Your task to perform on an android device: turn on notifications settings in the gmail app Image 0: 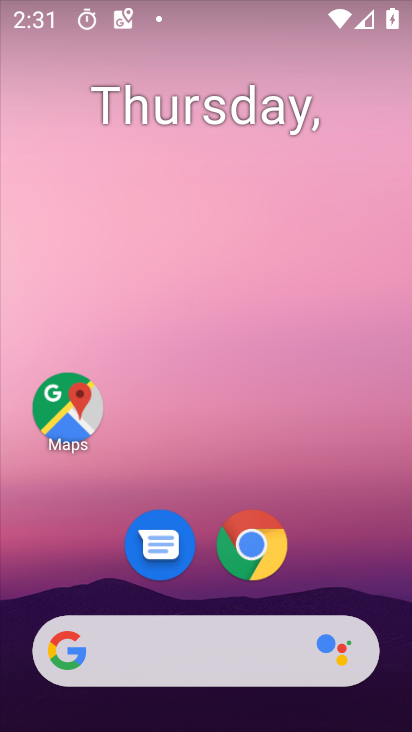
Step 0: drag from (180, 724) to (186, 88)
Your task to perform on an android device: turn on notifications settings in the gmail app Image 1: 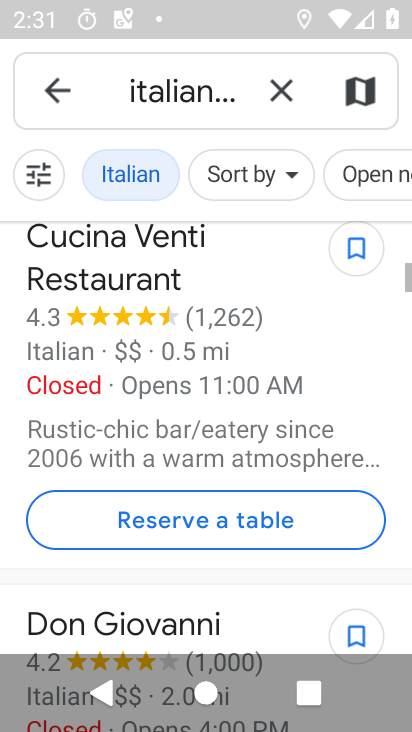
Step 1: press home button
Your task to perform on an android device: turn on notifications settings in the gmail app Image 2: 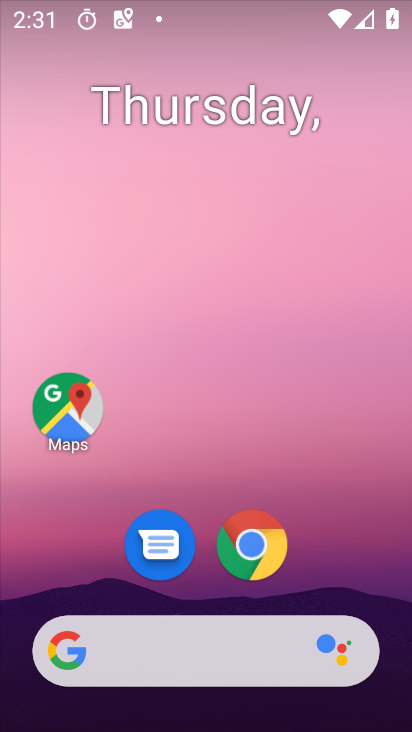
Step 2: drag from (191, 690) to (192, 162)
Your task to perform on an android device: turn on notifications settings in the gmail app Image 3: 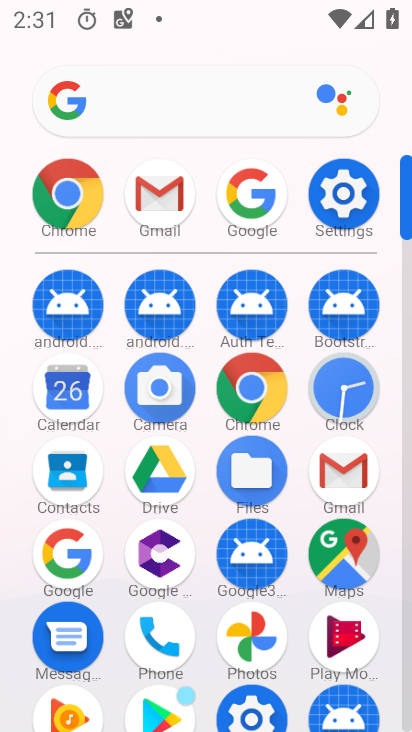
Step 3: click (339, 471)
Your task to perform on an android device: turn on notifications settings in the gmail app Image 4: 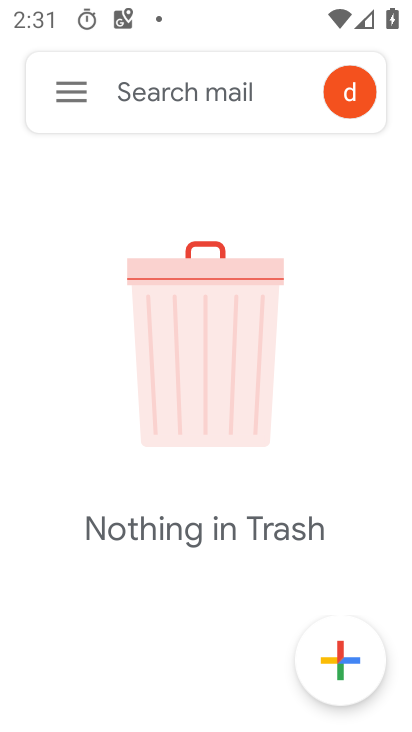
Step 4: click (57, 85)
Your task to perform on an android device: turn on notifications settings in the gmail app Image 5: 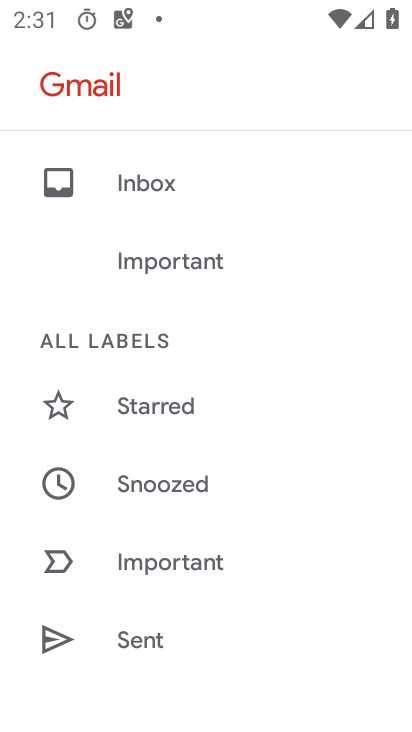
Step 5: drag from (158, 653) to (170, 213)
Your task to perform on an android device: turn on notifications settings in the gmail app Image 6: 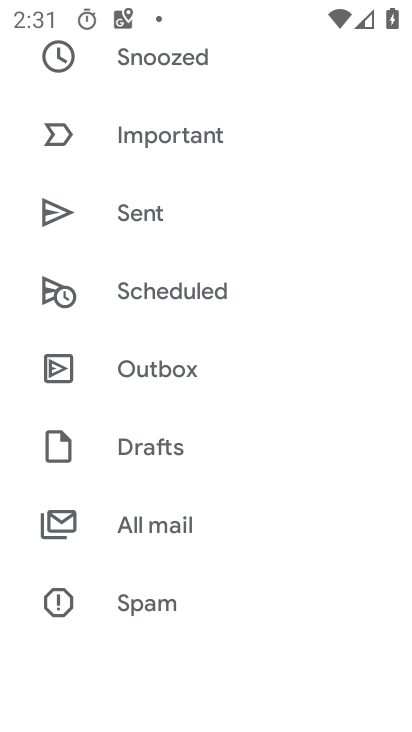
Step 6: drag from (159, 628) to (158, 95)
Your task to perform on an android device: turn on notifications settings in the gmail app Image 7: 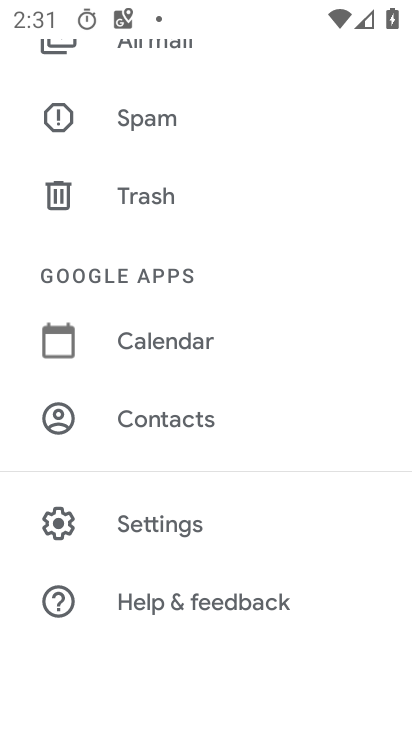
Step 7: click (146, 521)
Your task to perform on an android device: turn on notifications settings in the gmail app Image 8: 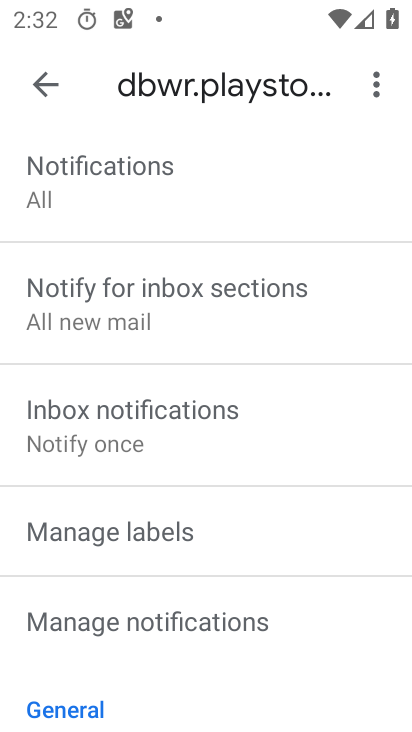
Step 8: task complete